Your task to perform on an android device: Open Chrome and go to settings Image 0: 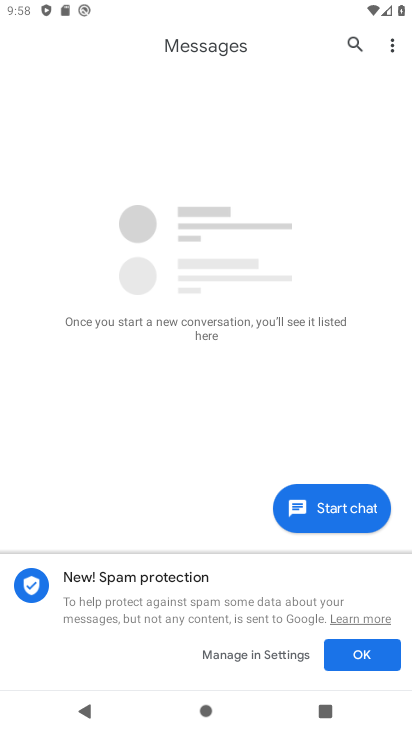
Step 0: press home button
Your task to perform on an android device: Open Chrome and go to settings Image 1: 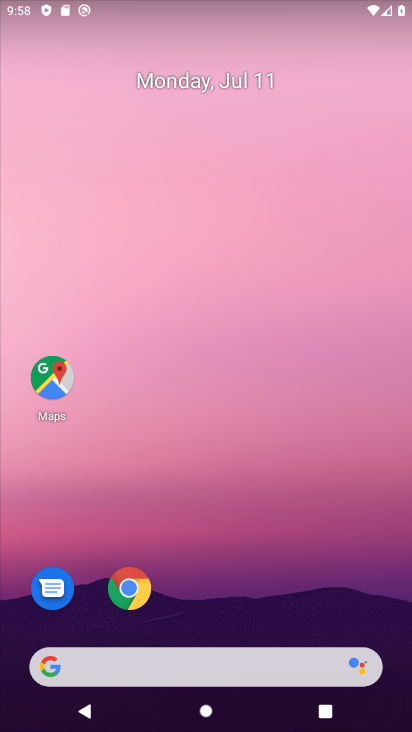
Step 1: click (125, 590)
Your task to perform on an android device: Open Chrome and go to settings Image 2: 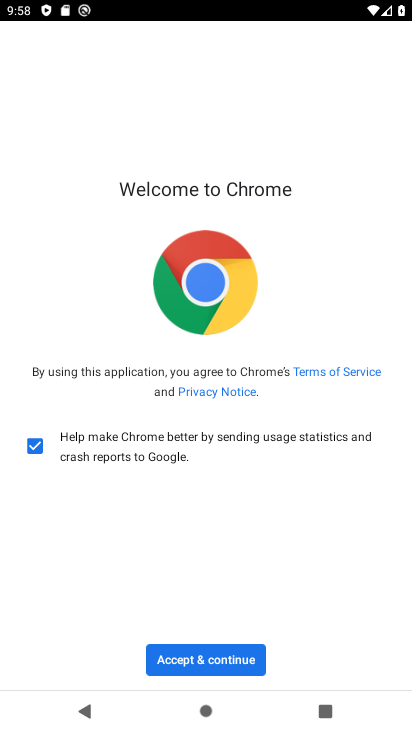
Step 2: click (173, 661)
Your task to perform on an android device: Open Chrome and go to settings Image 3: 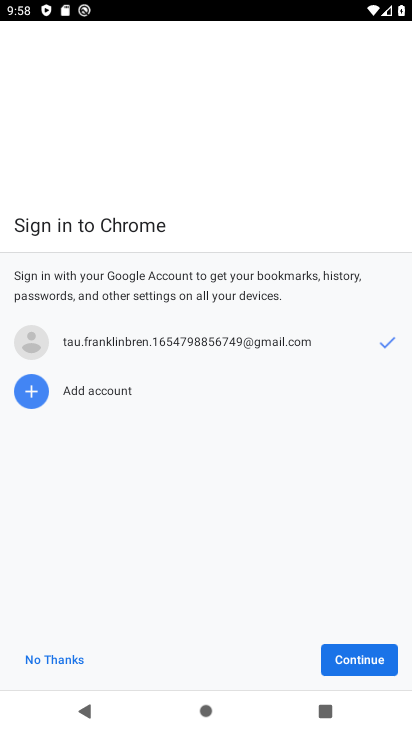
Step 3: click (366, 656)
Your task to perform on an android device: Open Chrome and go to settings Image 4: 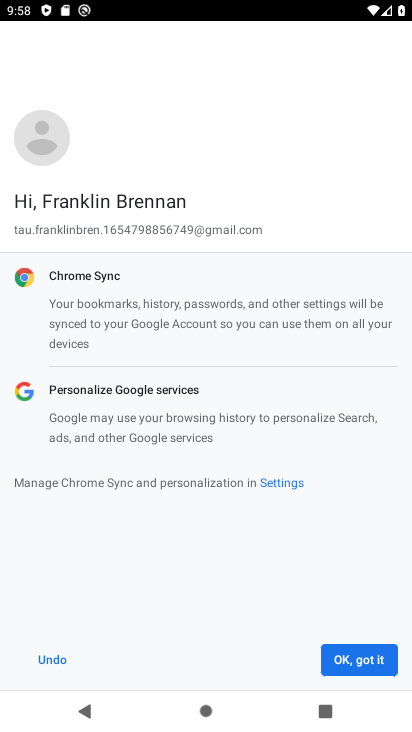
Step 4: click (344, 656)
Your task to perform on an android device: Open Chrome and go to settings Image 5: 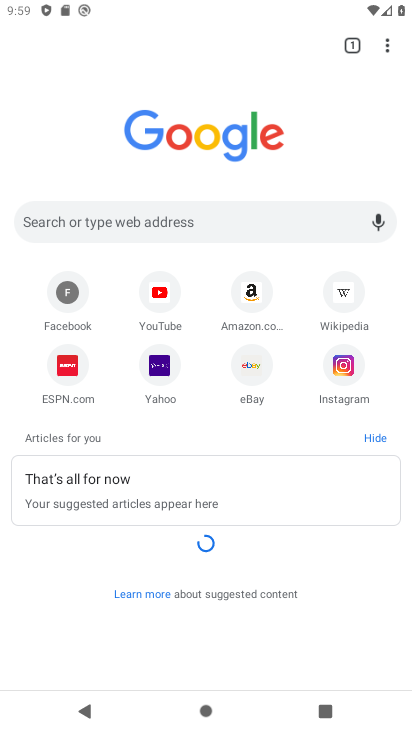
Step 5: click (387, 43)
Your task to perform on an android device: Open Chrome and go to settings Image 6: 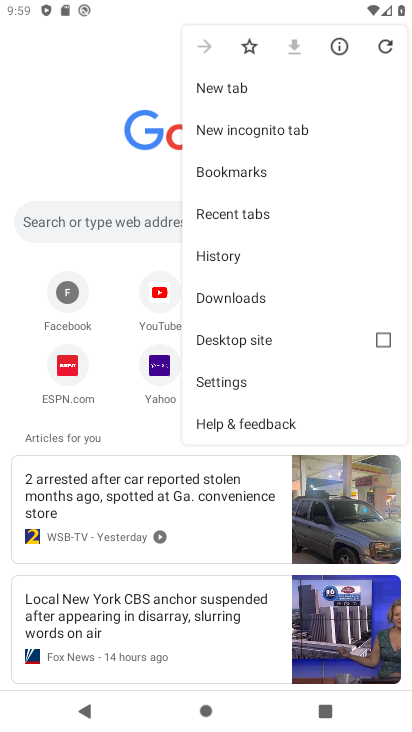
Step 6: click (230, 378)
Your task to perform on an android device: Open Chrome and go to settings Image 7: 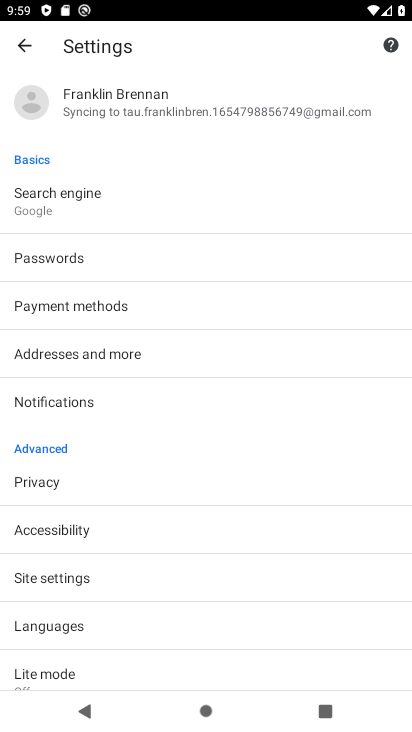
Step 7: task complete